Your task to perform on an android device: turn off sleep mode Image 0: 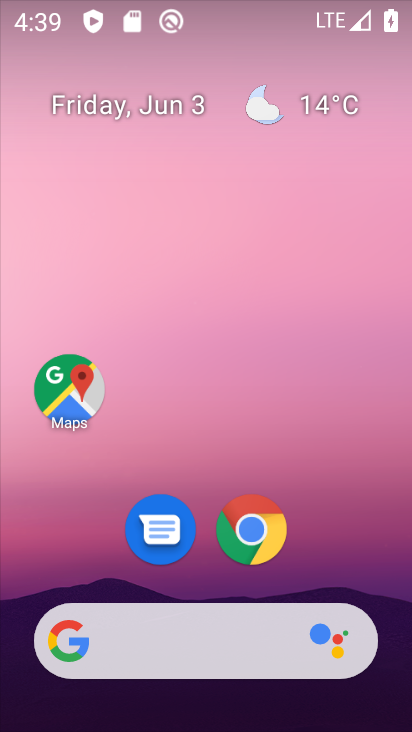
Step 0: press home button
Your task to perform on an android device: turn off sleep mode Image 1: 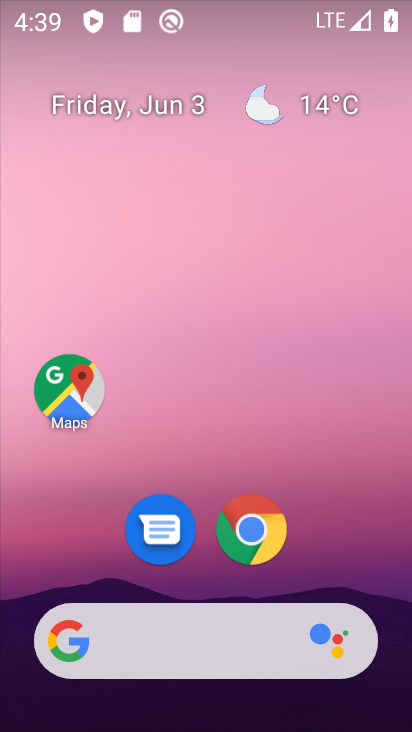
Step 1: drag from (211, 579) to (238, 138)
Your task to perform on an android device: turn off sleep mode Image 2: 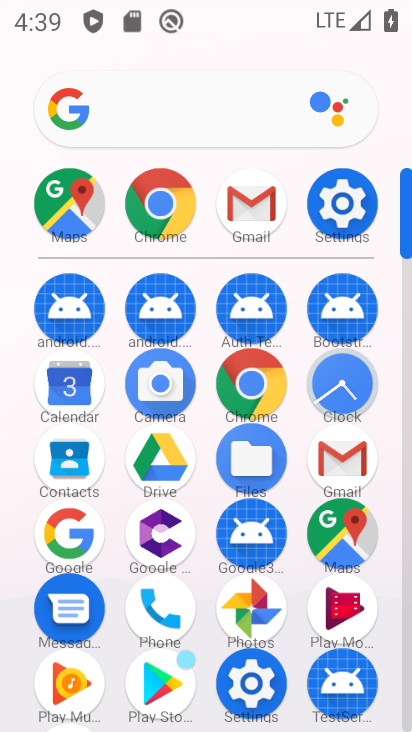
Step 2: click (334, 194)
Your task to perform on an android device: turn off sleep mode Image 3: 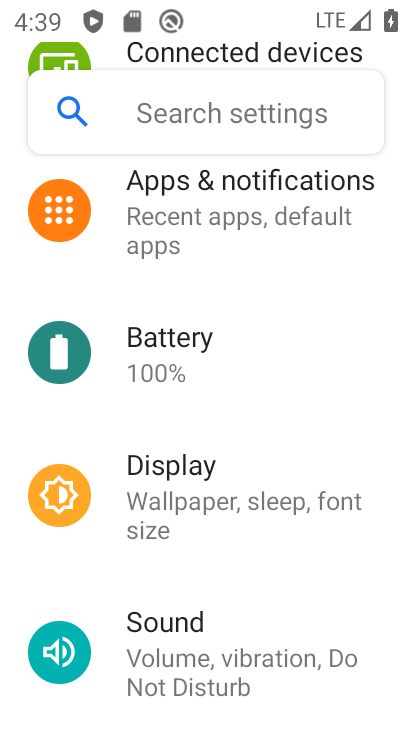
Step 3: click (221, 514)
Your task to perform on an android device: turn off sleep mode Image 4: 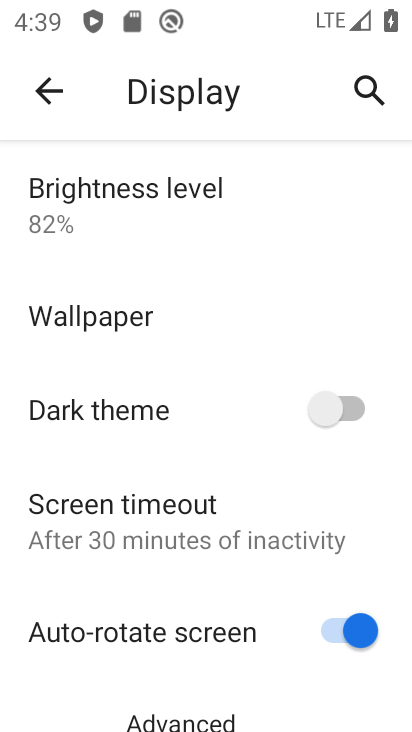
Step 4: drag from (121, 659) to (127, 580)
Your task to perform on an android device: turn off sleep mode Image 5: 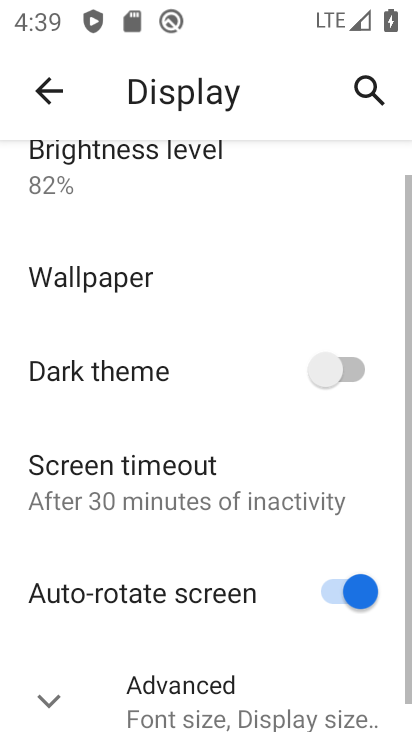
Step 5: drag from (135, 347) to (143, 243)
Your task to perform on an android device: turn off sleep mode Image 6: 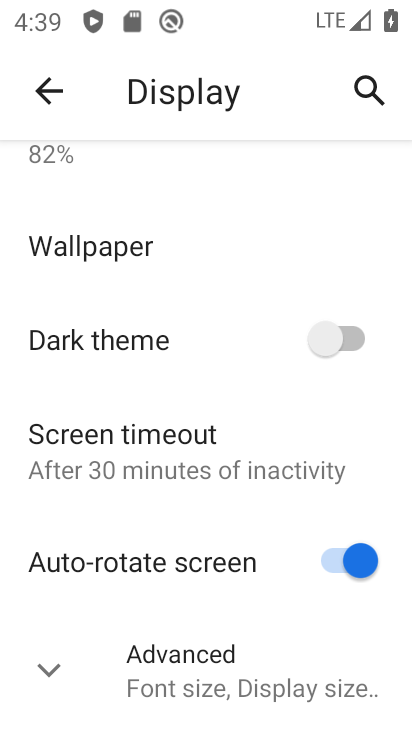
Step 6: click (49, 662)
Your task to perform on an android device: turn off sleep mode Image 7: 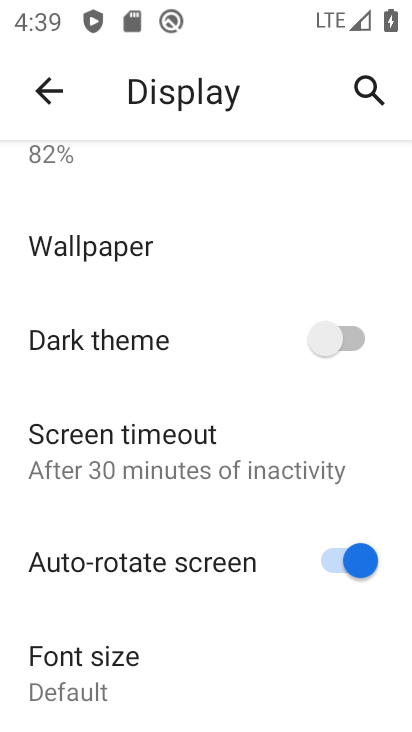
Step 7: task complete